Your task to perform on an android device: change your default location settings in chrome Image 0: 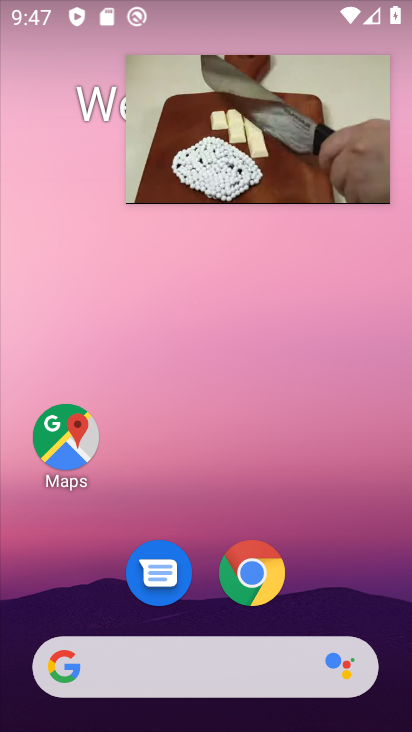
Step 0: drag from (379, 595) to (368, 292)
Your task to perform on an android device: change your default location settings in chrome Image 1: 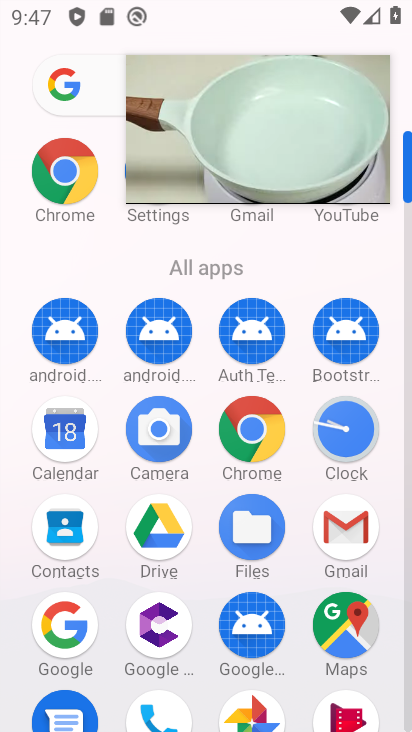
Step 1: click (258, 439)
Your task to perform on an android device: change your default location settings in chrome Image 2: 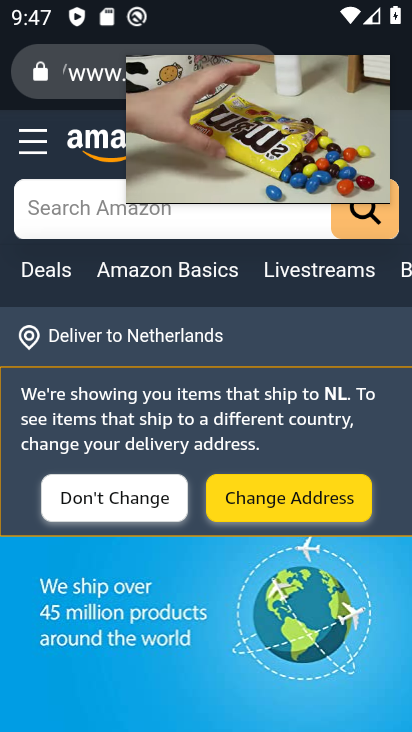
Step 2: drag from (349, 127) to (284, 711)
Your task to perform on an android device: change your default location settings in chrome Image 3: 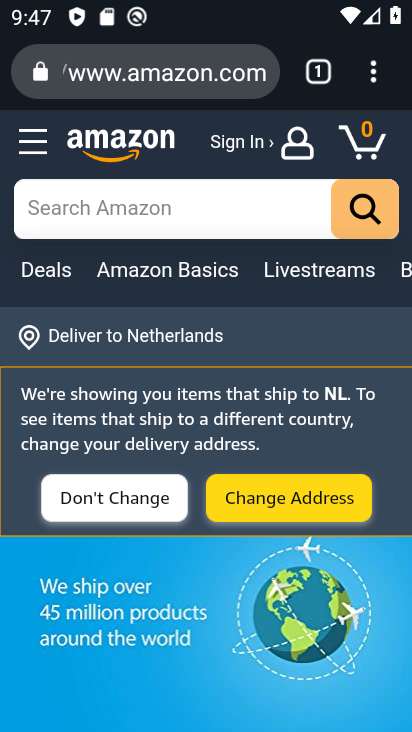
Step 3: click (373, 81)
Your task to perform on an android device: change your default location settings in chrome Image 4: 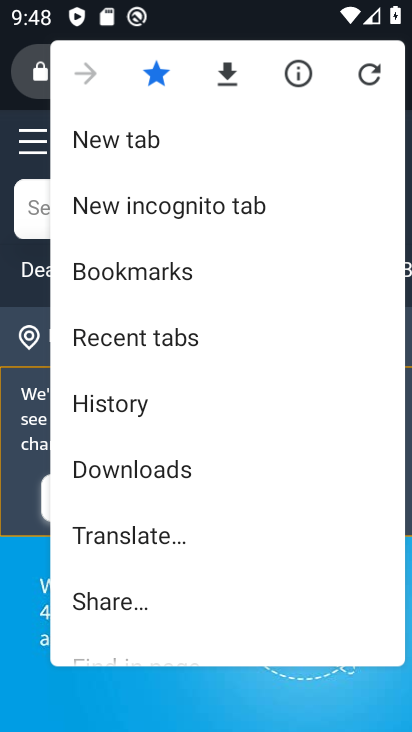
Step 4: drag from (309, 548) to (301, 373)
Your task to perform on an android device: change your default location settings in chrome Image 5: 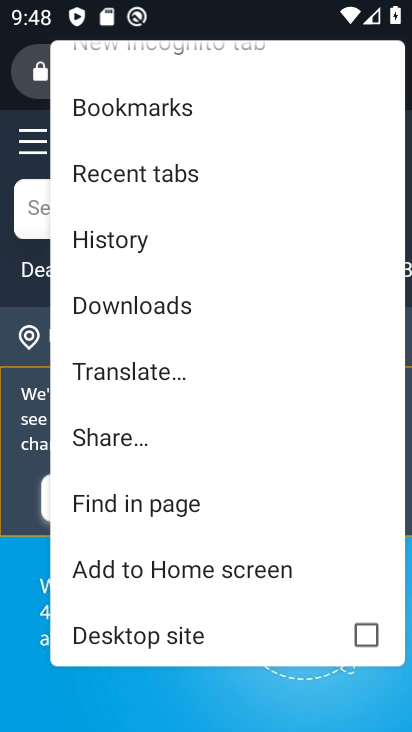
Step 5: drag from (311, 610) to (312, 418)
Your task to perform on an android device: change your default location settings in chrome Image 6: 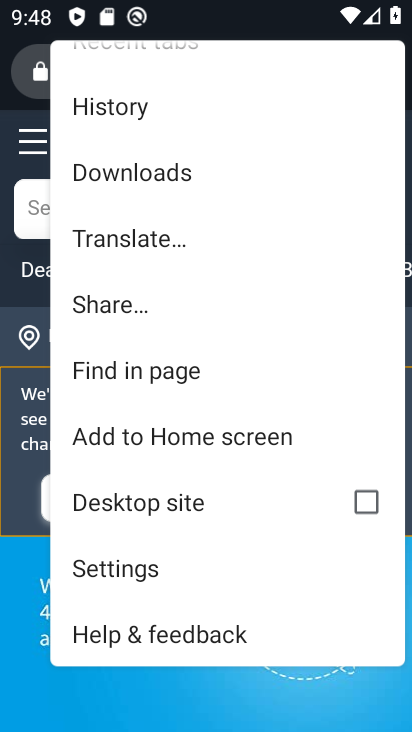
Step 6: drag from (294, 589) to (300, 417)
Your task to perform on an android device: change your default location settings in chrome Image 7: 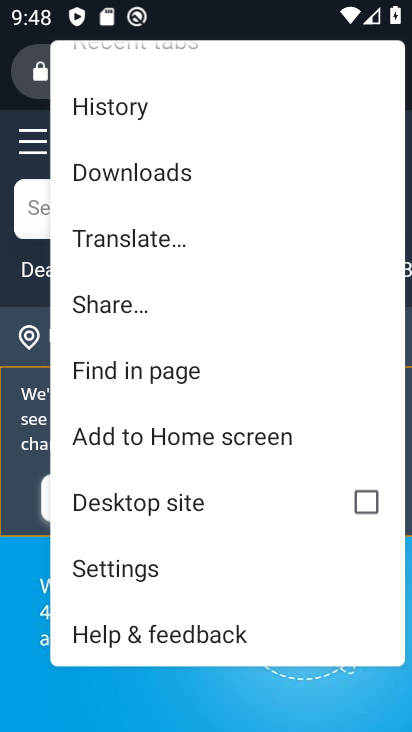
Step 7: click (135, 573)
Your task to perform on an android device: change your default location settings in chrome Image 8: 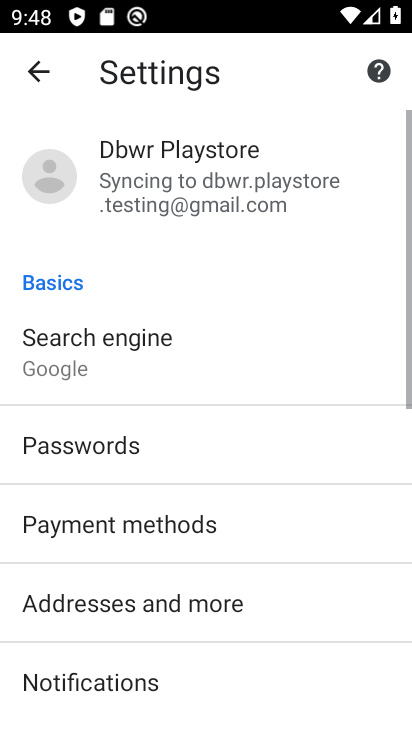
Step 8: drag from (296, 618) to (294, 434)
Your task to perform on an android device: change your default location settings in chrome Image 9: 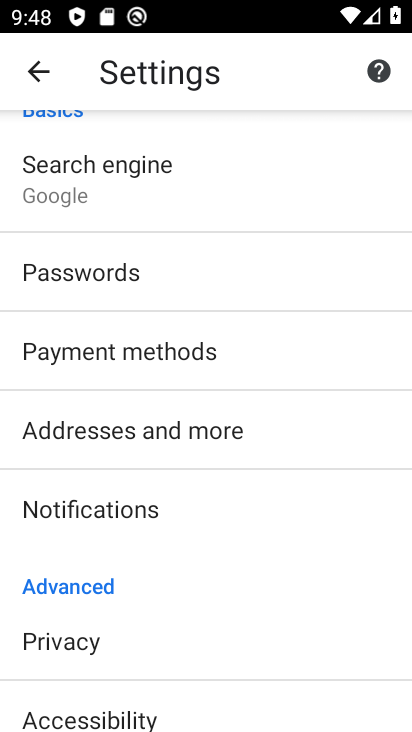
Step 9: drag from (301, 627) to (310, 445)
Your task to perform on an android device: change your default location settings in chrome Image 10: 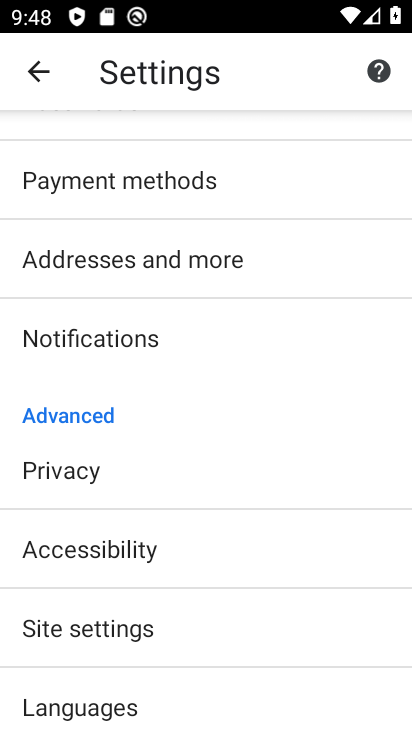
Step 10: drag from (287, 647) to (279, 495)
Your task to perform on an android device: change your default location settings in chrome Image 11: 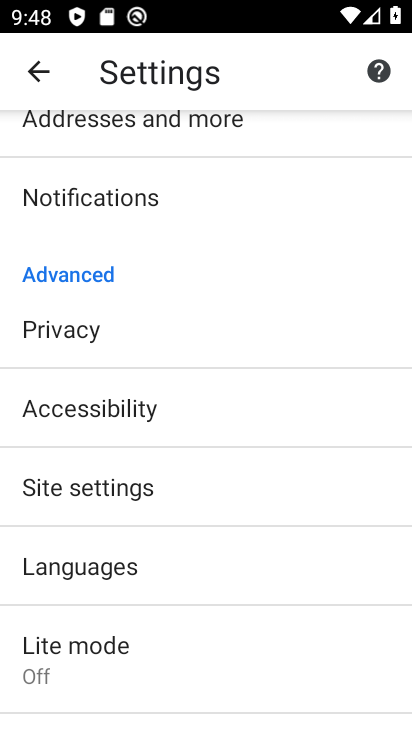
Step 11: drag from (306, 679) to (307, 520)
Your task to perform on an android device: change your default location settings in chrome Image 12: 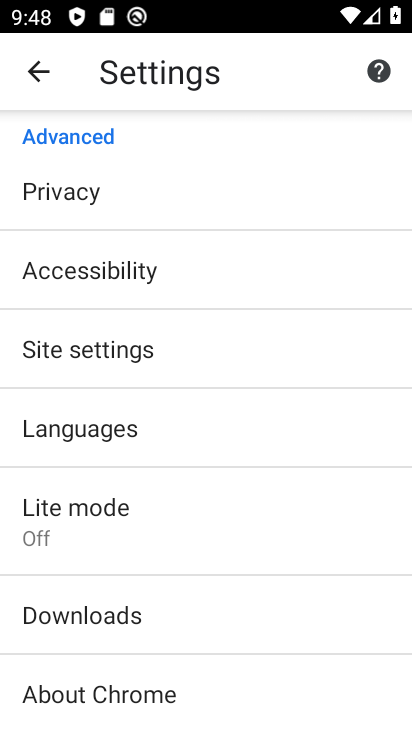
Step 12: drag from (306, 676) to (324, 539)
Your task to perform on an android device: change your default location settings in chrome Image 13: 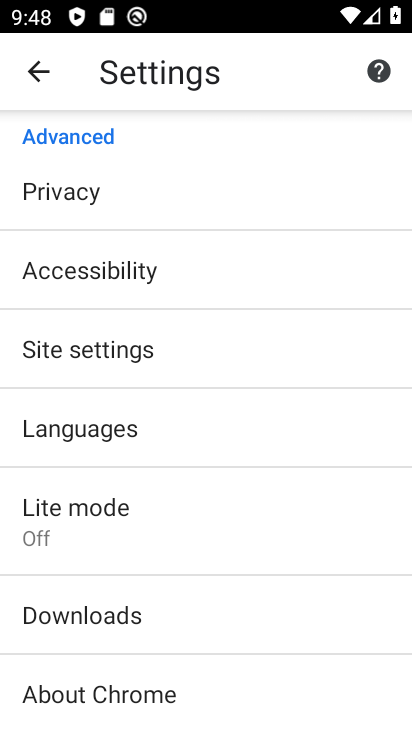
Step 13: click (299, 344)
Your task to perform on an android device: change your default location settings in chrome Image 14: 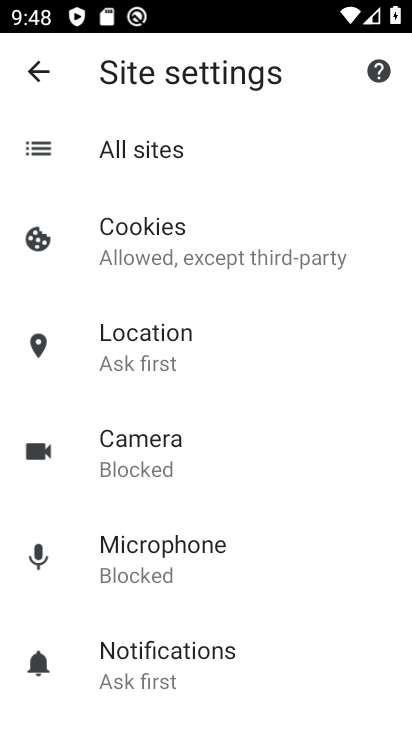
Step 14: drag from (293, 611) to (279, 480)
Your task to perform on an android device: change your default location settings in chrome Image 15: 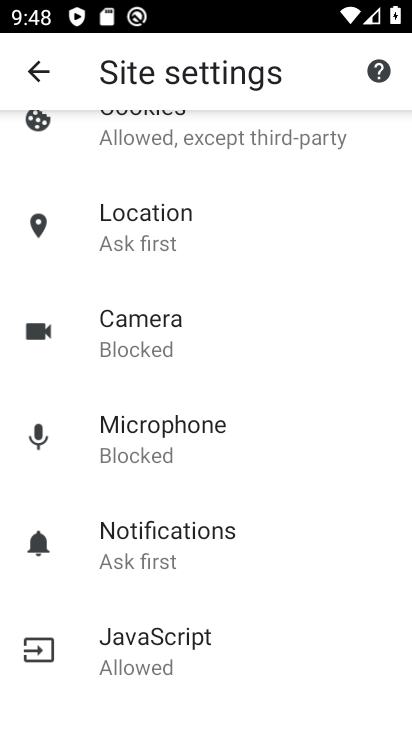
Step 15: drag from (289, 610) to (298, 431)
Your task to perform on an android device: change your default location settings in chrome Image 16: 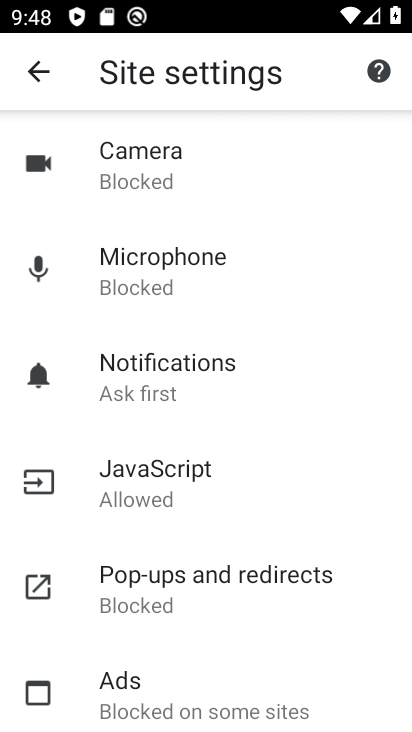
Step 16: drag from (320, 633) to (320, 477)
Your task to perform on an android device: change your default location settings in chrome Image 17: 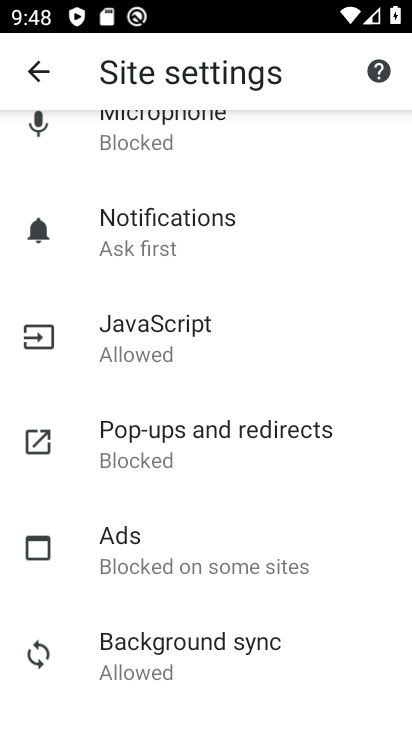
Step 17: drag from (327, 648) to (342, 446)
Your task to perform on an android device: change your default location settings in chrome Image 18: 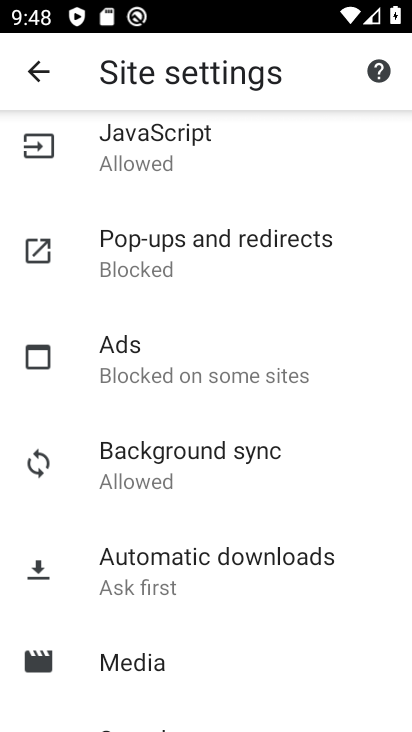
Step 18: drag from (321, 654) to (321, 452)
Your task to perform on an android device: change your default location settings in chrome Image 19: 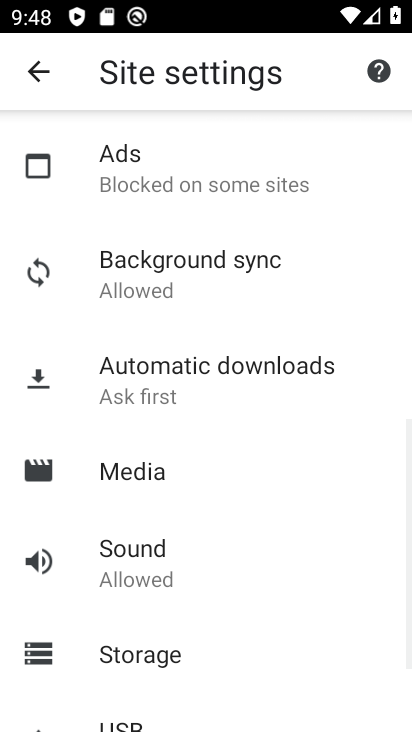
Step 19: drag from (314, 646) to (314, 464)
Your task to perform on an android device: change your default location settings in chrome Image 20: 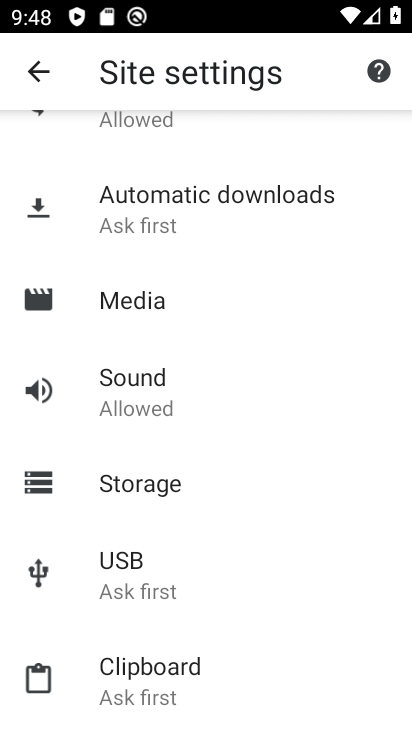
Step 20: drag from (306, 612) to (309, 442)
Your task to perform on an android device: change your default location settings in chrome Image 21: 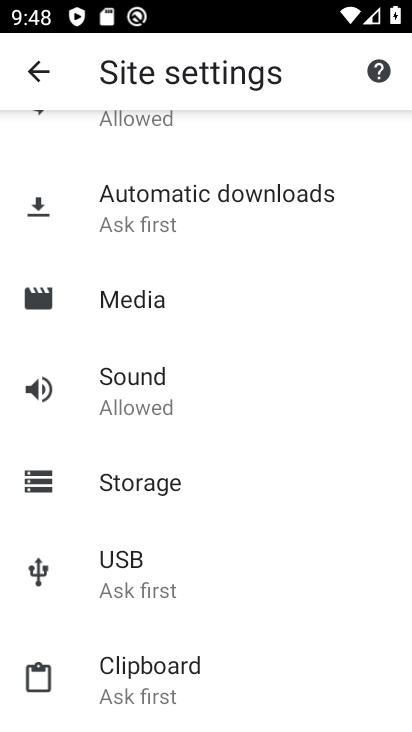
Step 21: drag from (313, 343) to (312, 494)
Your task to perform on an android device: change your default location settings in chrome Image 22: 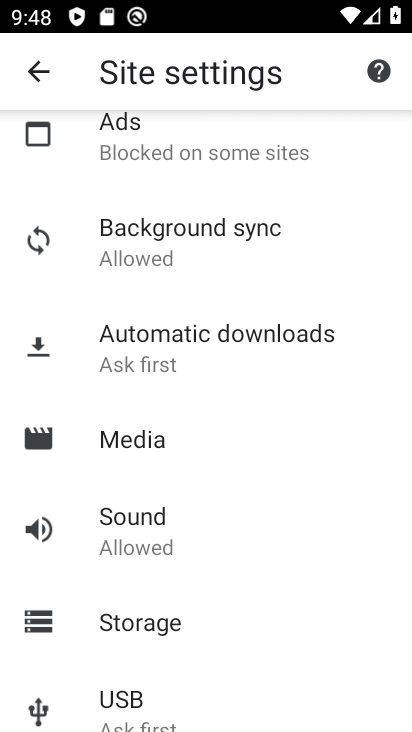
Step 22: drag from (342, 284) to (345, 459)
Your task to perform on an android device: change your default location settings in chrome Image 23: 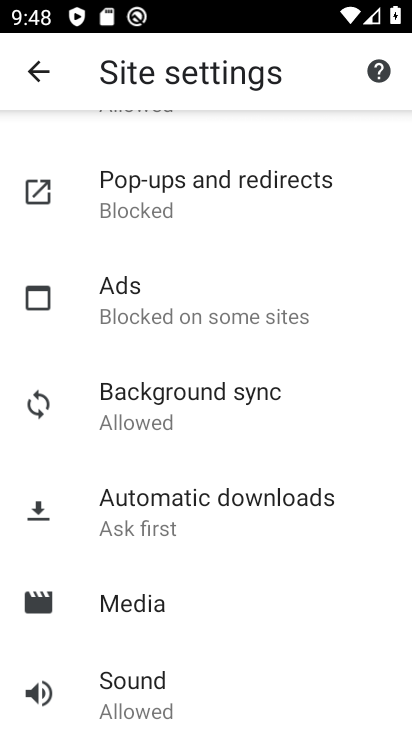
Step 23: drag from (339, 286) to (340, 449)
Your task to perform on an android device: change your default location settings in chrome Image 24: 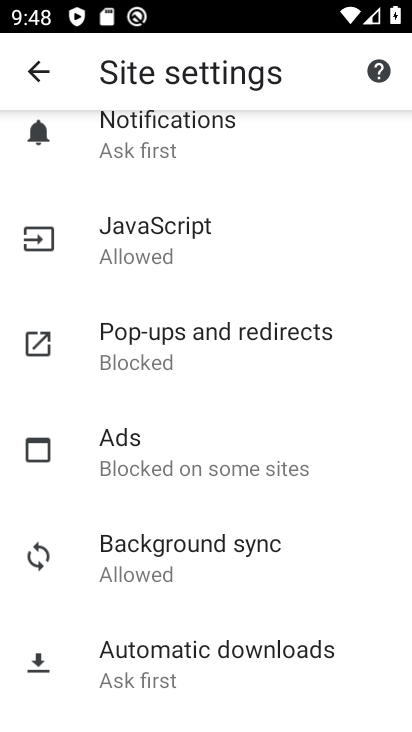
Step 24: drag from (355, 249) to (344, 442)
Your task to perform on an android device: change your default location settings in chrome Image 25: 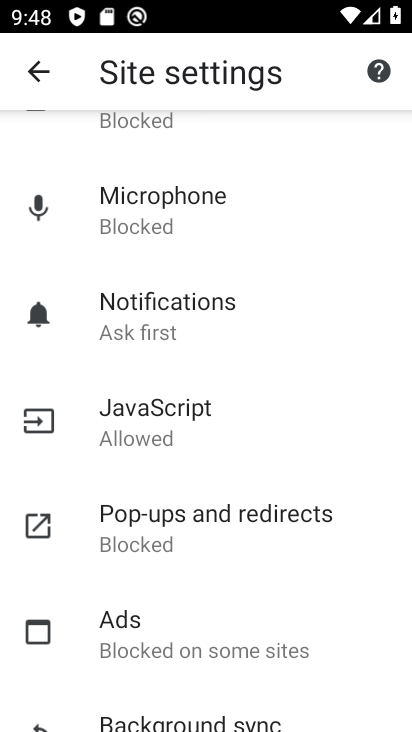
Step 25: drag from (331, 270) to (321, 463)
Your task to perform on an android device: change your default location settings in chrome Image 26: 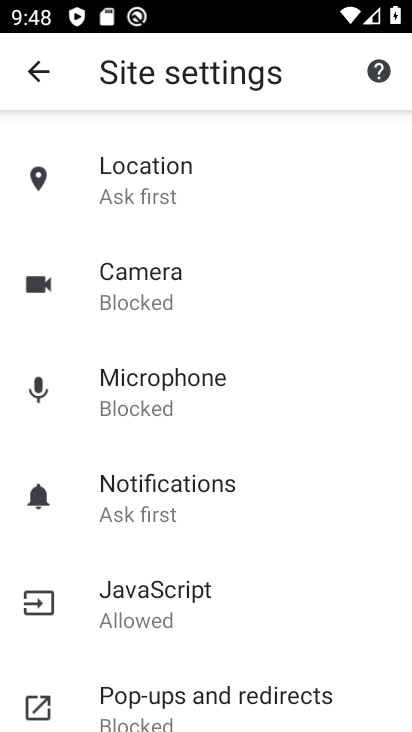
Step 26: drag from (308, 264) to (309, 465)
Your task to perform on an android device: change your default location settings in chrome Image 27: 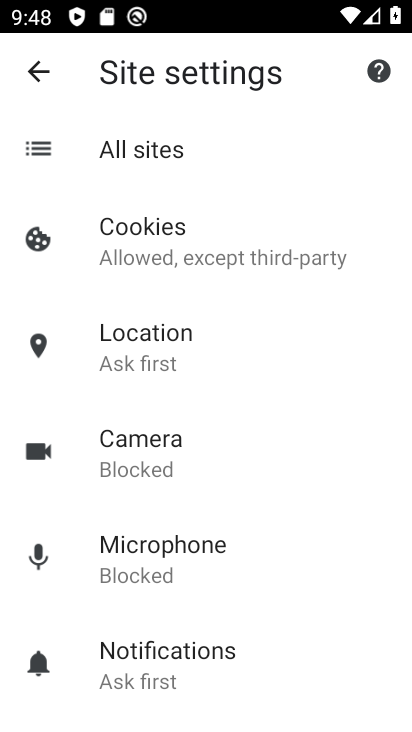
Step 27: drag from (313, 215) to (295, 451)
Your task to perform on an android device: change your default location settings in chrome Image 28: 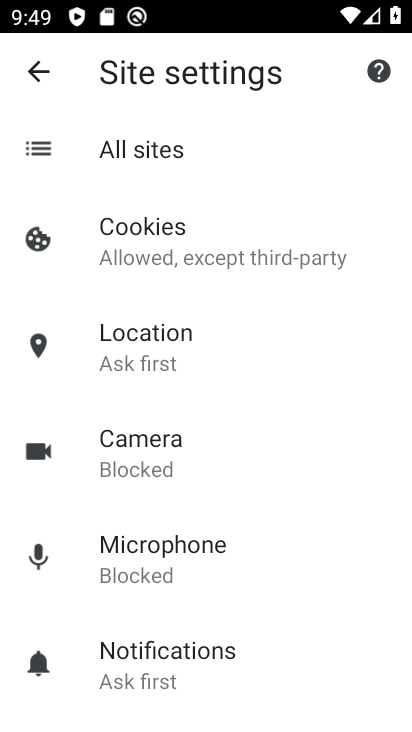
Step 28: drag from (291, 508) to (293, 344)
Your task to perform on an android device: change your default location settings in chrome Image 29: 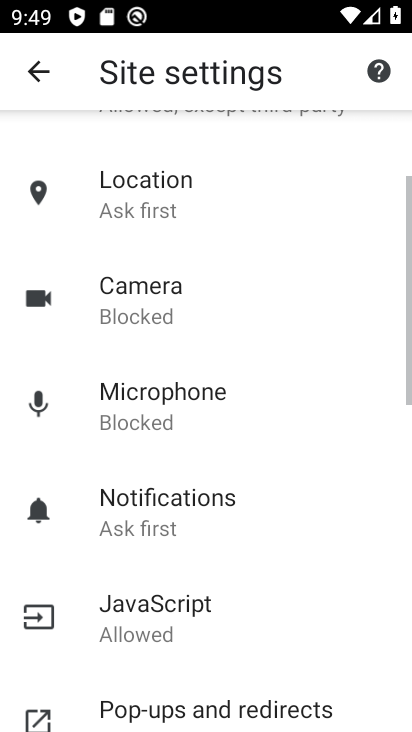
Step 29: drag from (279, 565) to (275, 368)
Your task to perform on an android device: change your default location settings in chrome Image 30: 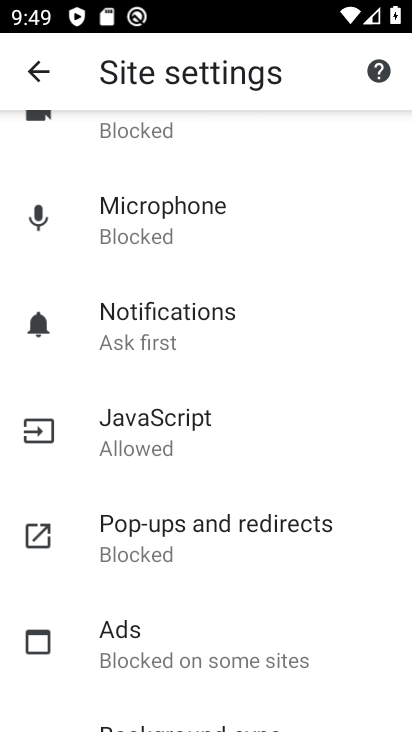
Step 30: drag from (271, 599) to (275, 415)
Your task to perform on an android device: change your default location settings in chrome Image 31: 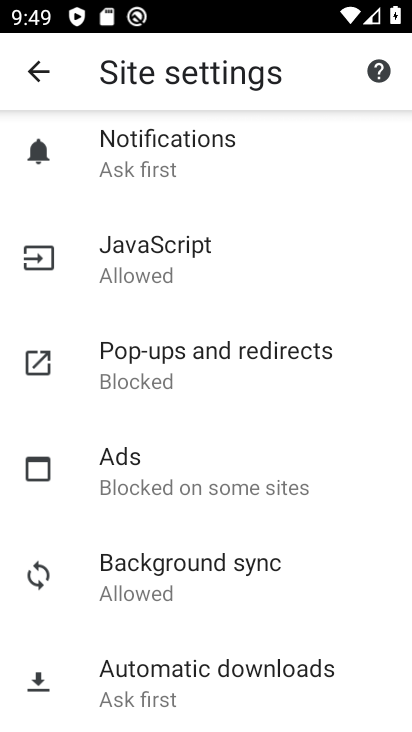
Step 31: drag from (266, 592) to (269, 394)
Your task to perform on an android device: change your default location settings in chrome Image 32: 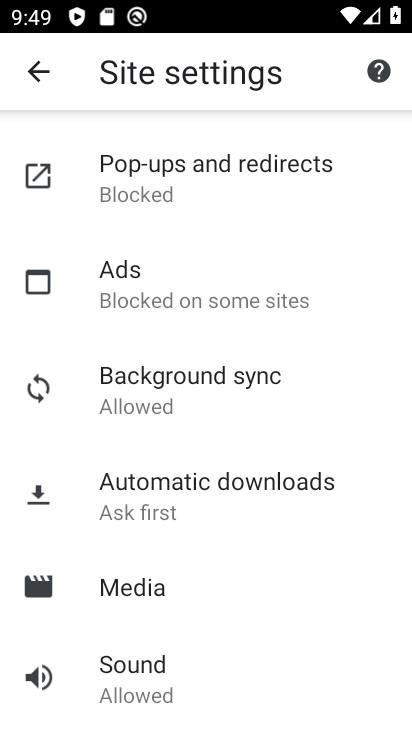
Step 32: drag from (330, 319) to (331, 493)
Your task to perform on an android device: change your default location settings in chrome Image 33: 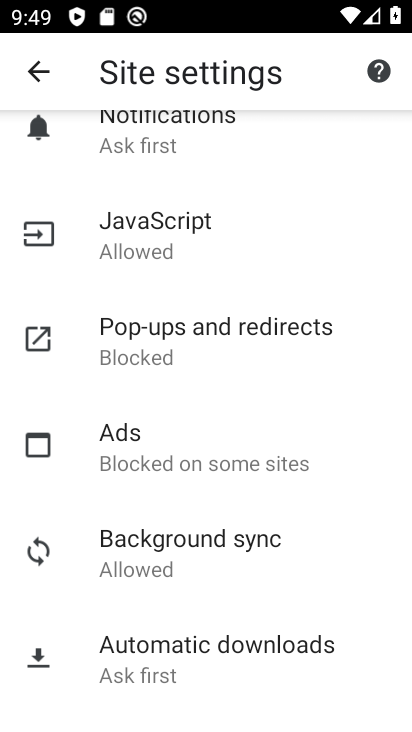
Step 33: drag from (348, 253) to (349, 447)
Your task to perform on an android device: change your default location settings in chrome Image 34: 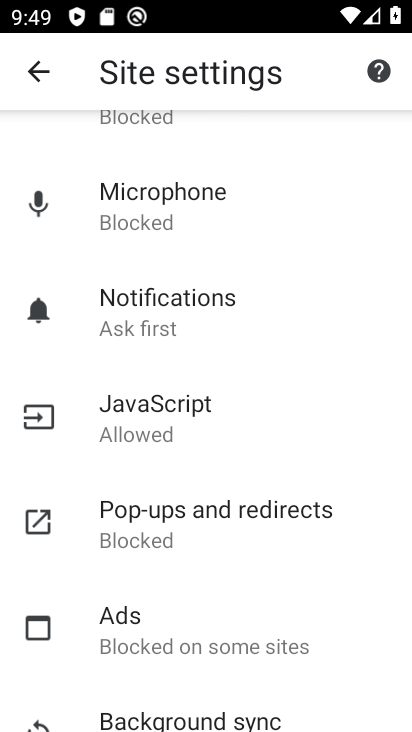
Step 34: drag from (335, 263) to (336, 436)
Your task to perform on an android device: change your default location settings in chrome Image 35: 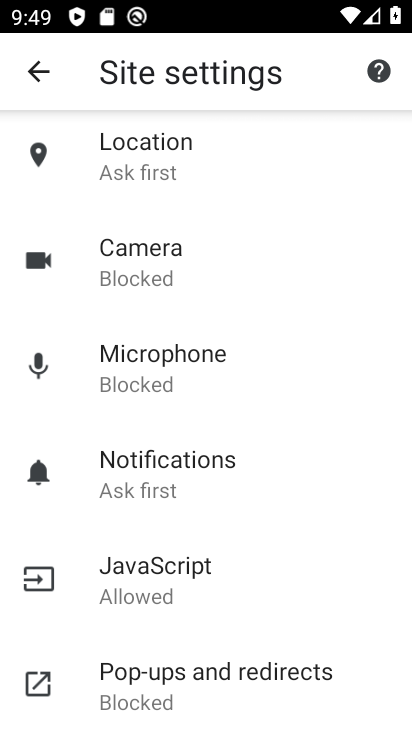
Step 35: click (209, 176)
Your task to perform on an android device: change your default location settings in chrome Image 36: 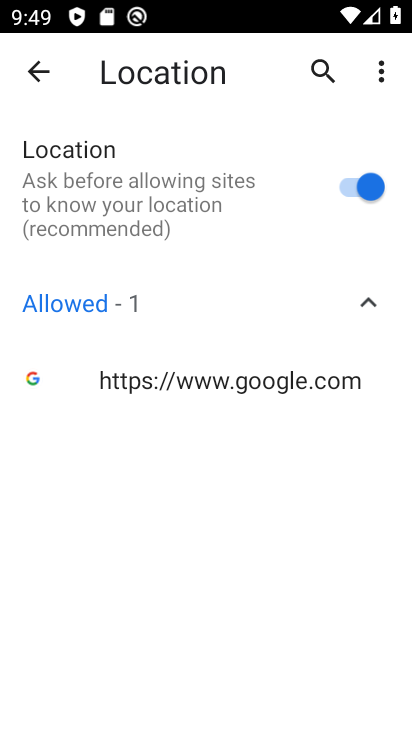
Step 36: task complete